Your task to perform on an android device: Is it going to rain today? Image 0: 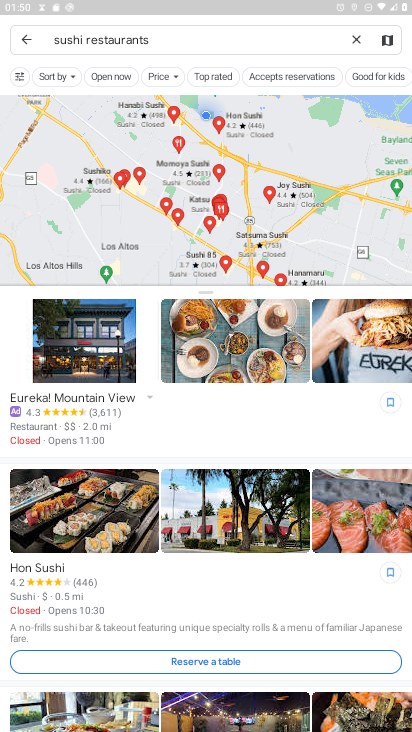
Step 0: press home button
Your task to perform on an android device: Is it going to rain today? Image 1: 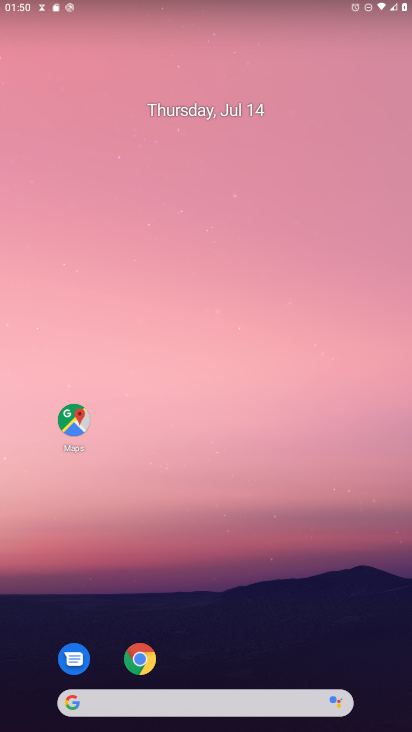
Step 1: click (126, 708)
Your task to perform on an android device: Is it going to rain today? Image 2: 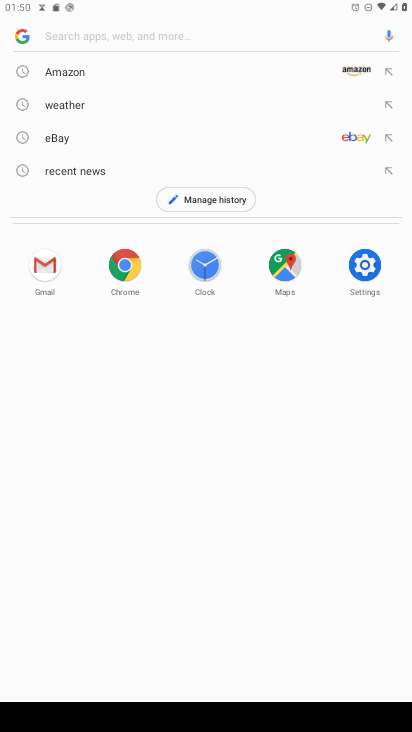
Step 2: type "Is it going to rain today?"
Your task to perform on an android device: Is it going to rain today? Image 3: 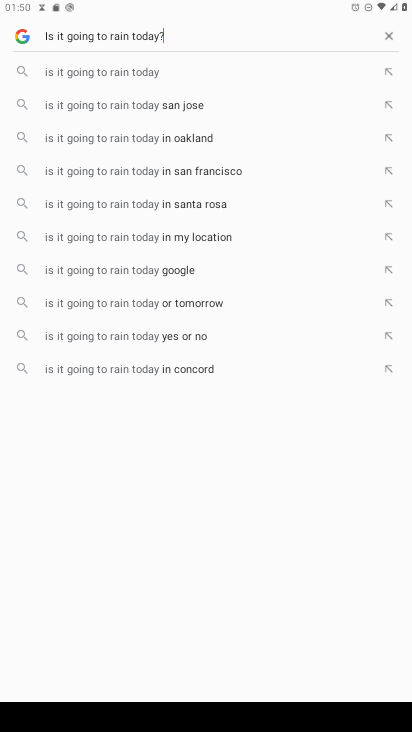
Step 3: type ""
Your task to perform on an android device: Is it going to rain today? Image 4: 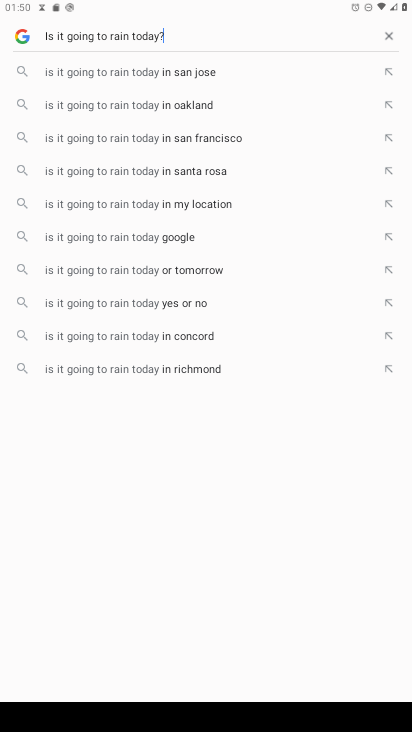
Step 4: type ""
Your task to perform on an android device: Is it going to rain today? Image 5: 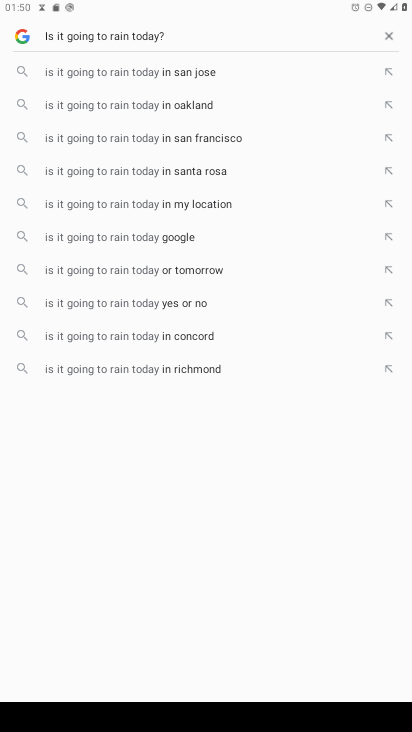
Step 5: type ""
Your task to perform on an android device: Is it going to rain today? Image 6: 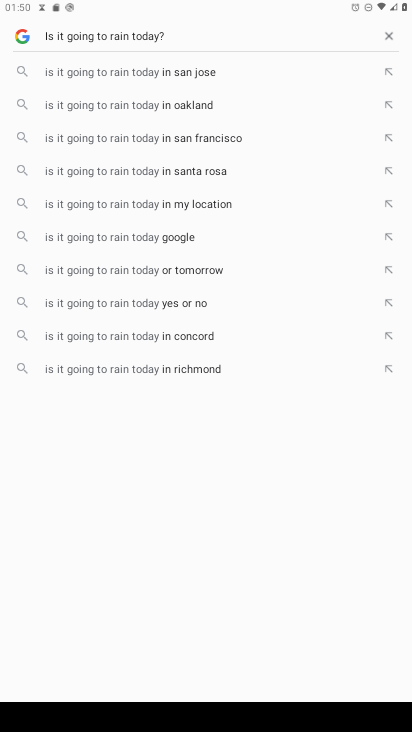
Step 6: task complete